Your task to perform on an android device: What is the recent news? Image 0: 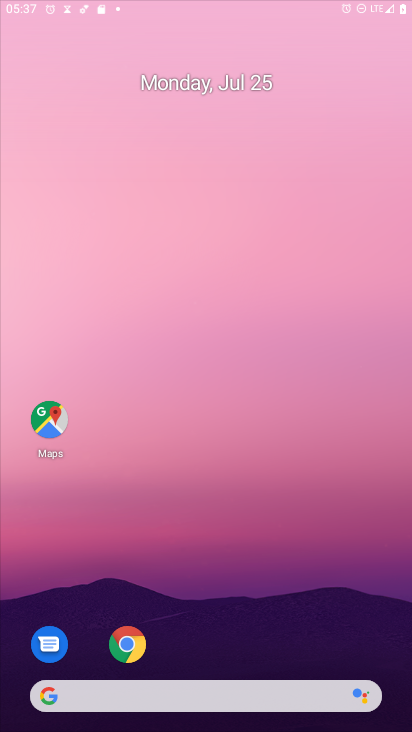
Step 0: press home button
Your task to perform on an android device: What is the recent news? Image 1: 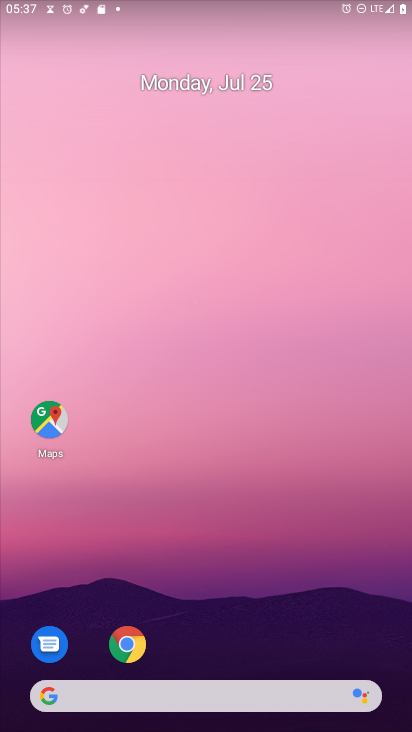
Step 1: click (55, 700)
Your task to perform on an android device: What is the recent news? Image 2: 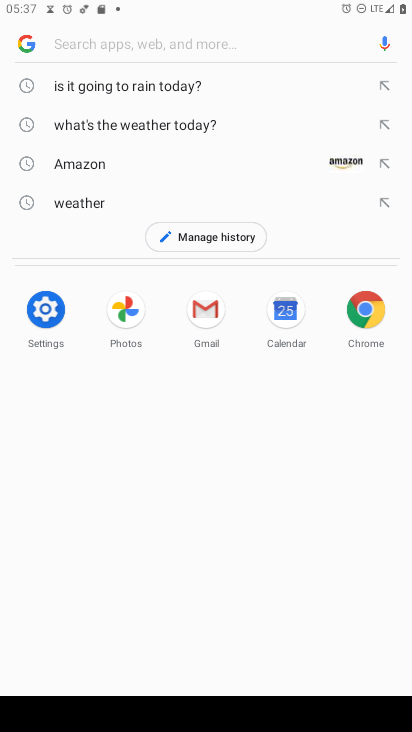
Step 2: type "recent news?"
Your task to perform on an android device: What is the recent news? Image 3: 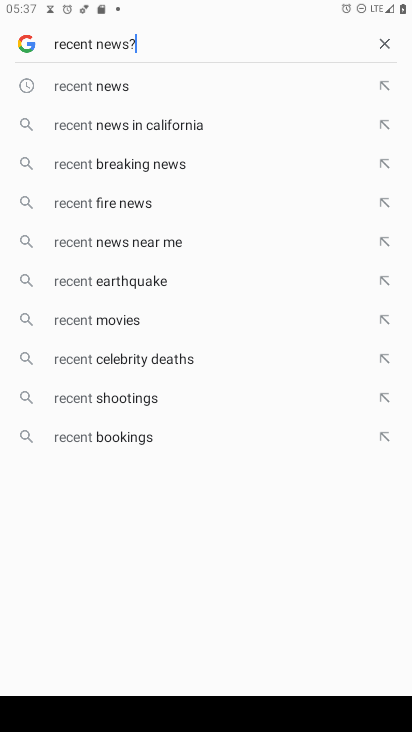
Step 3: press enter
Your task to perform on an android device: What is the recent news? Image 4: 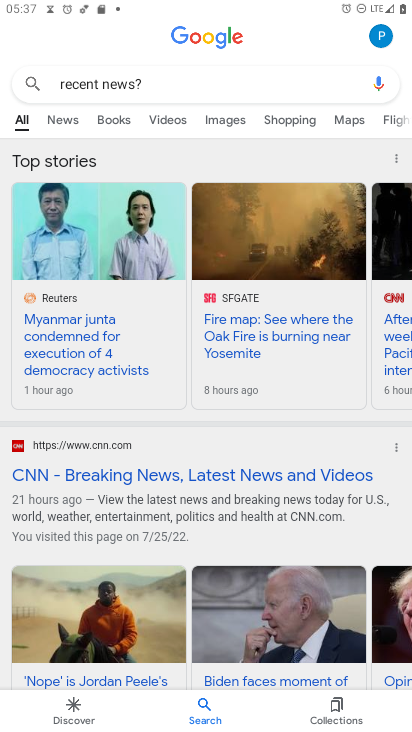
Step 4: task complete